Your task to perform on an android device: set default search engine in the chrome app Image 0: 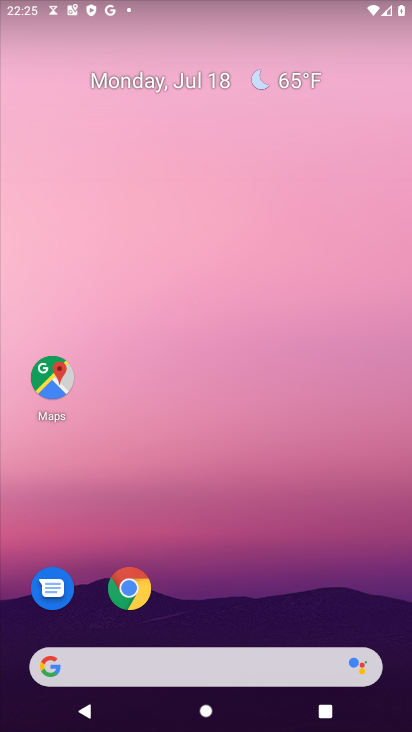
Step 0: click (130, 589)
Your task to perform on an android device: set default search engine in the chrome app Image 1: 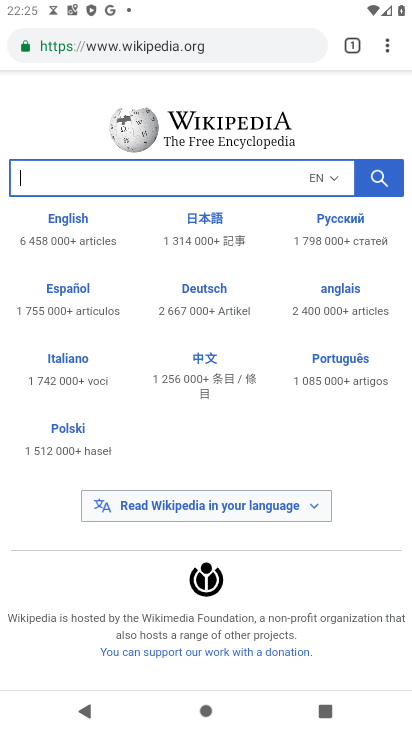
Step 1: click (387, 46)
Your task to perform on an android device: set default search engine in the chrome app Image 2: 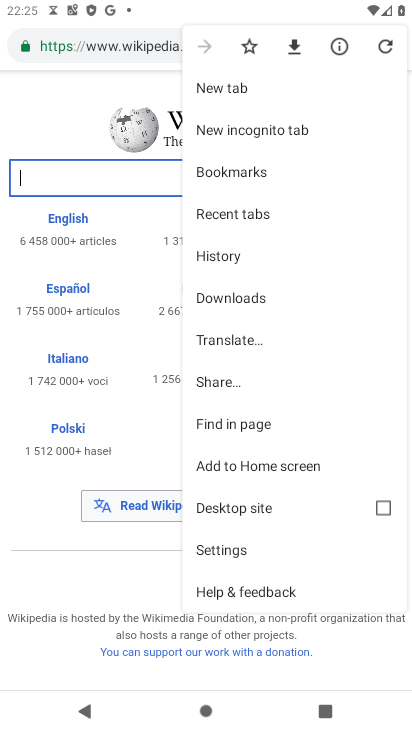
Step 2: click (232, 550)
Your task to perform on an android device: set default search engine in the chrome app Image 3: 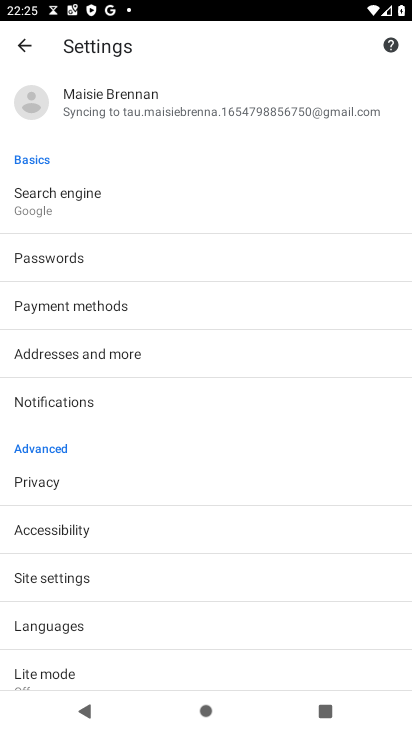
Step 3: click (75, 188)
Your task to perform on an android device: set default search engine in the chrome app Image 4: 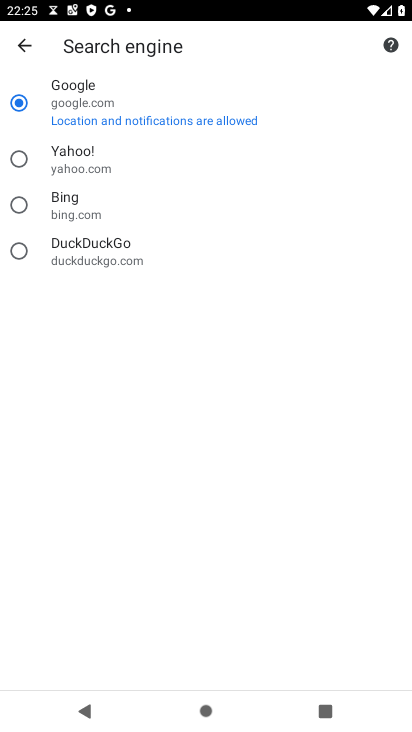
Step 4: click (19, 102)
Your task to perform on an android device: set default search engine in the chrome app Image 5: 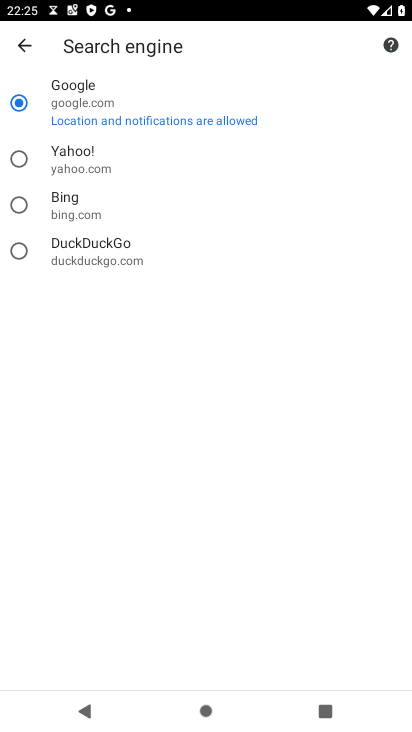
Step 5: task complete